Your task to perform on an android device: Open the calendar and show me this week's events Image 0: 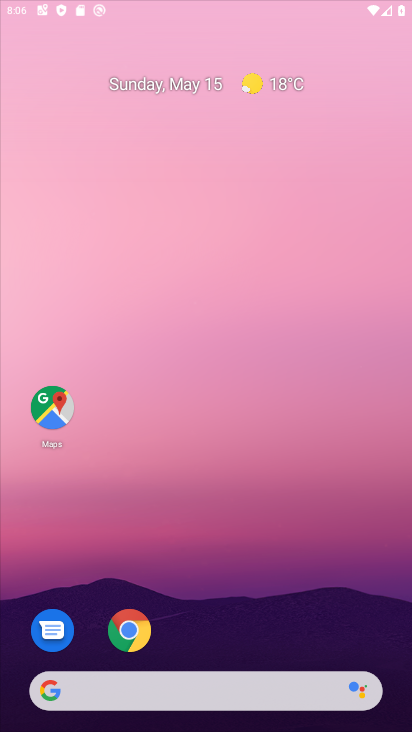
Step 0: click (242, 374)
Your task to perform on an android device: Open the calendar and show me this week's events Image 1: 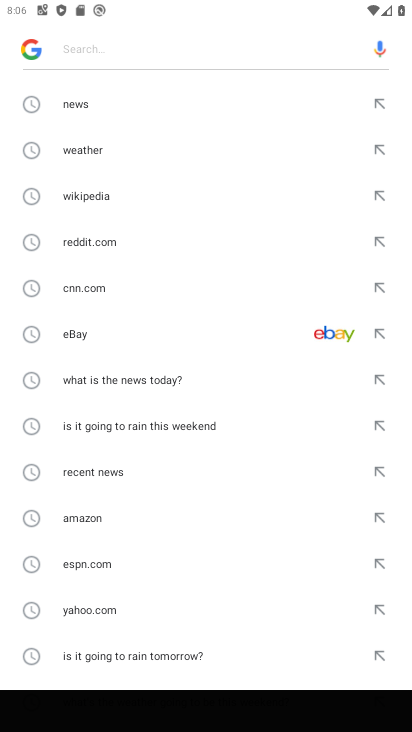
Step 1: drag from (214, 643) to (317, 126)
Your task to perform on an android device: Open the calendar and show me this week's events Image 2: 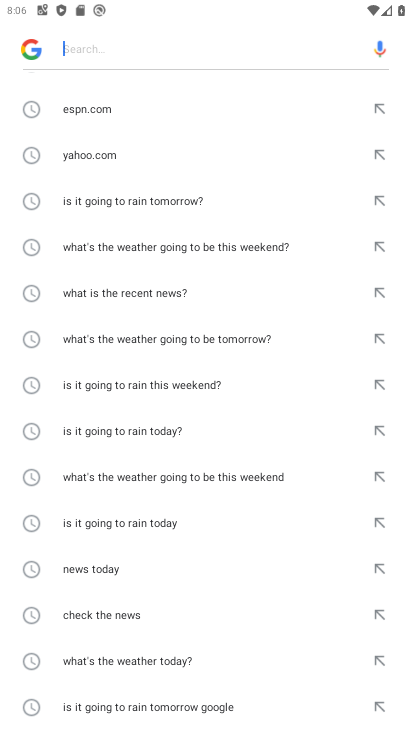
Step 2: press home button
Your task to perform on an android device: Open the calendar and show me this week's events Image 3: 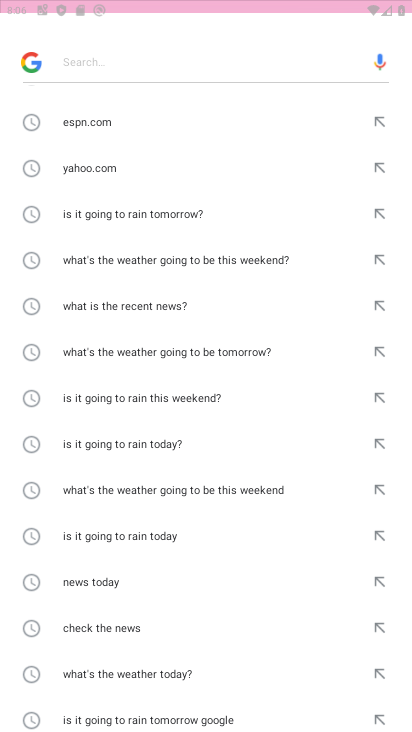
Step 3: drag from (303, 551) to (316, 263)
Your task to perform on an android device: Open the calendar and show me this week's events Image 4: 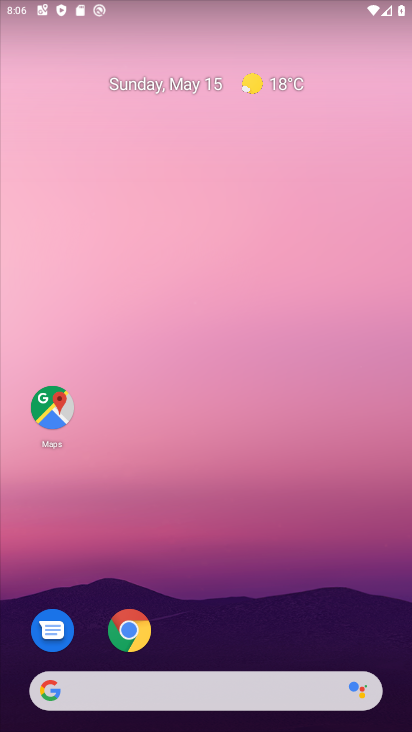
Step 4: drag from (187, 590) to (300, 78)
Your task to perform on an android device: Open the calendar and show me this week's events Image 5: 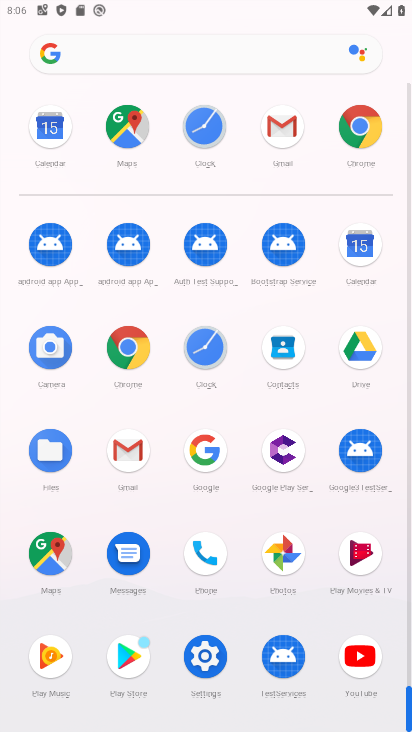
Step 5: drag from (243, 647) to (248, 180)
Your task to perform on an android device: Open the calendar and show me this week's events Image 6: 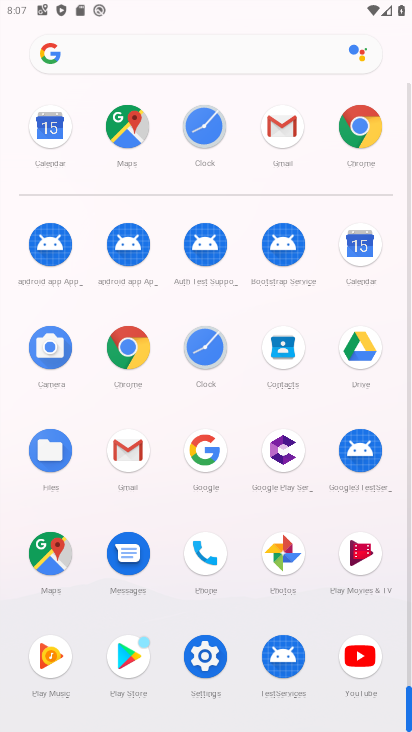
Step 6: click (354, 239)
Your task to perform on an android device: Open the calendar and show me this week's events Image 7: 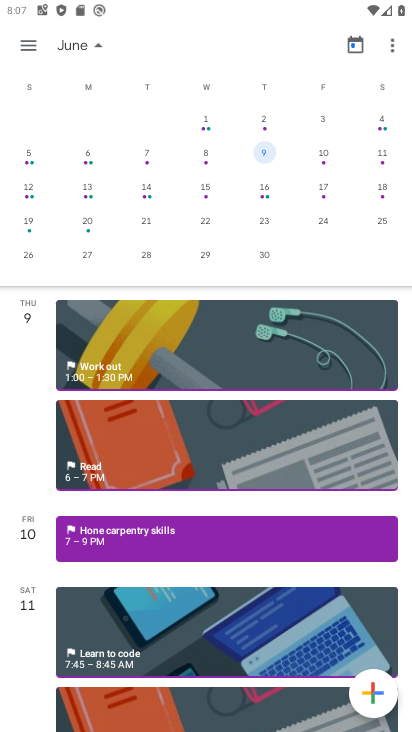
Step 7: drag from (15, 156) to (406, 174)
Your task to perform on an android device: Open the calendar and show me this week's events Image 8: 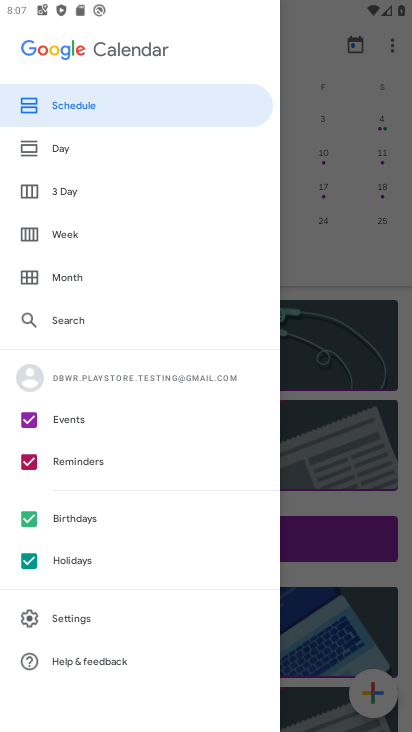
Step 8: press back button
Your task to perform on an android device: Open the calendar and show me this week's events Image 9: 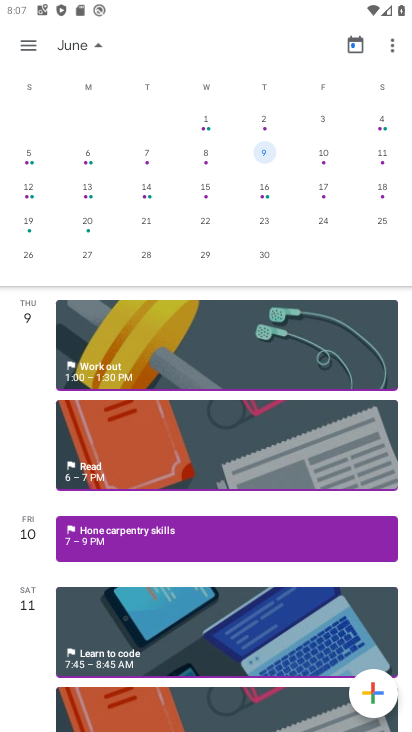
Step 9: drag from (63, 222) to (411, 193)
Your task to perform on an android device: Open the calendar and show me this week's events Image 10: 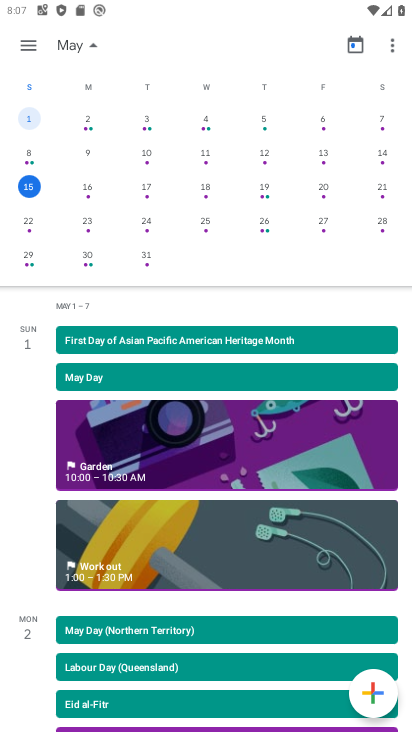
Step 10: click (211, 187)
Your task to perform on an android device: Open the calendar and show me this week's events Image 11: 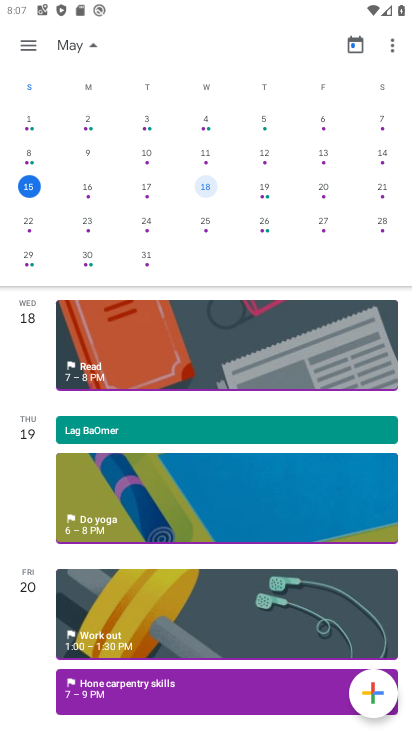
Step 11: task complete